Your task to perform on an android device: Go to network settings Image 0: 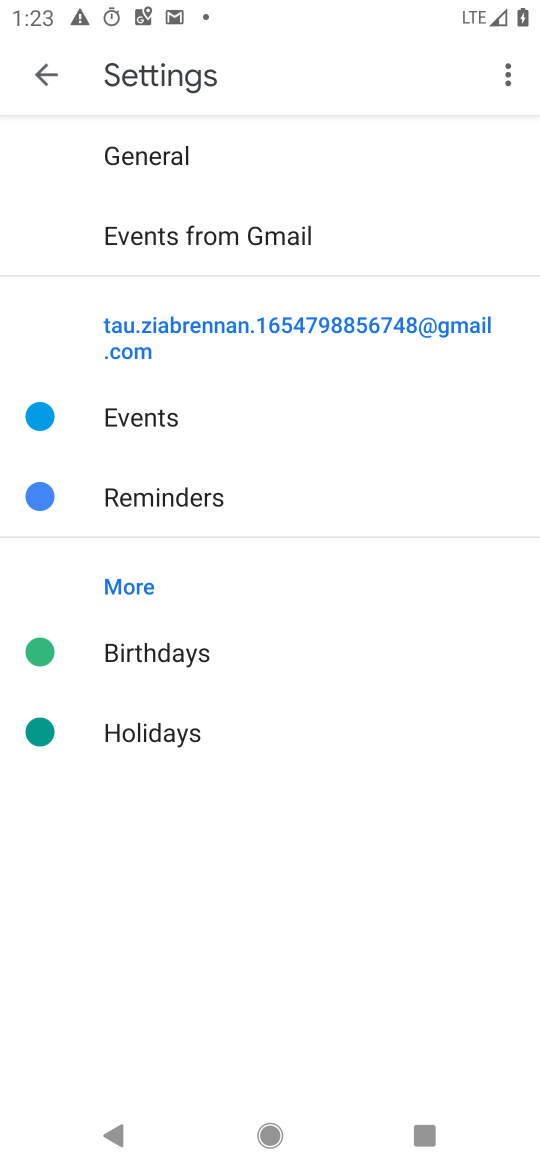
Step 0: drag from (314, 873) to (333, 545)
Your task to perform on an android device: Go to network settings Image 1: 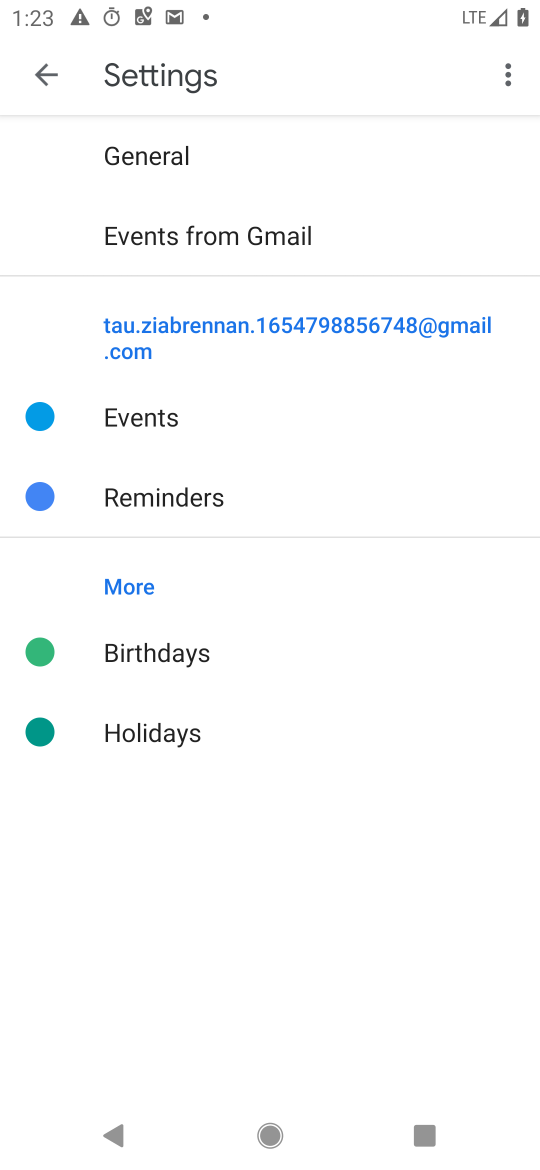
Step 1: press home button
Your task to perform on an android device: Go to network settings Image 2: 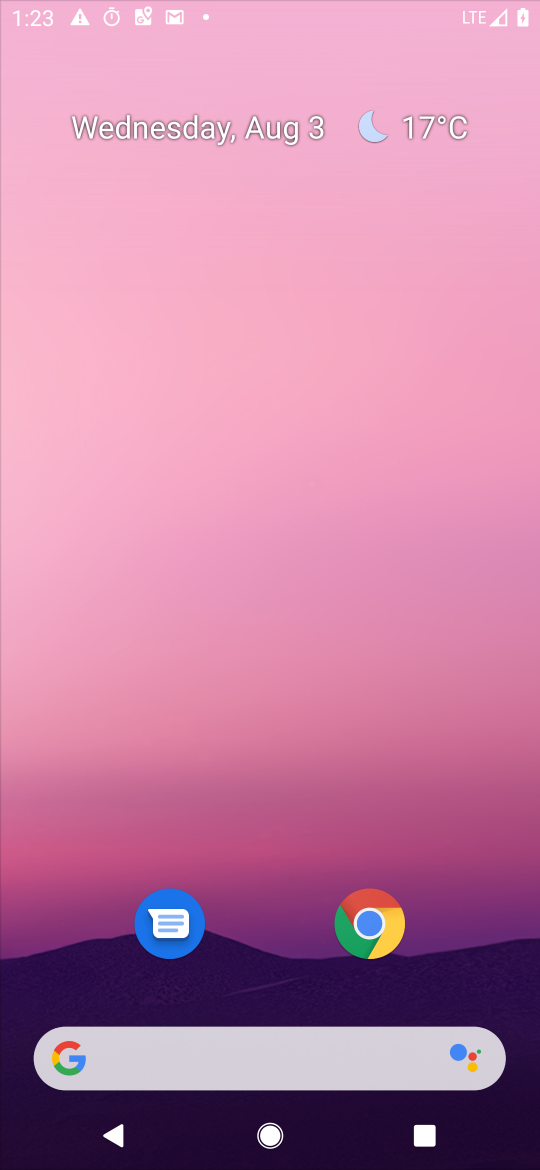
Step 2: drag from (298, 970) to (215, 393)
Your task to perform on an android device: Go to network settings Image 3: 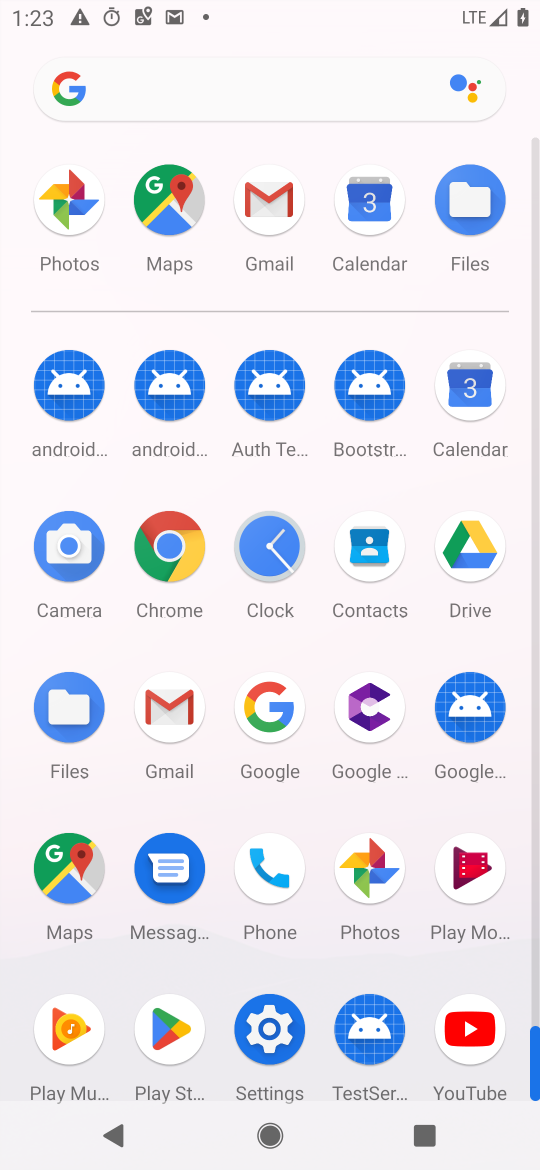
Step 3: click (281, 1021)
Your task to perform on an android device: Go to network settings Image 4: 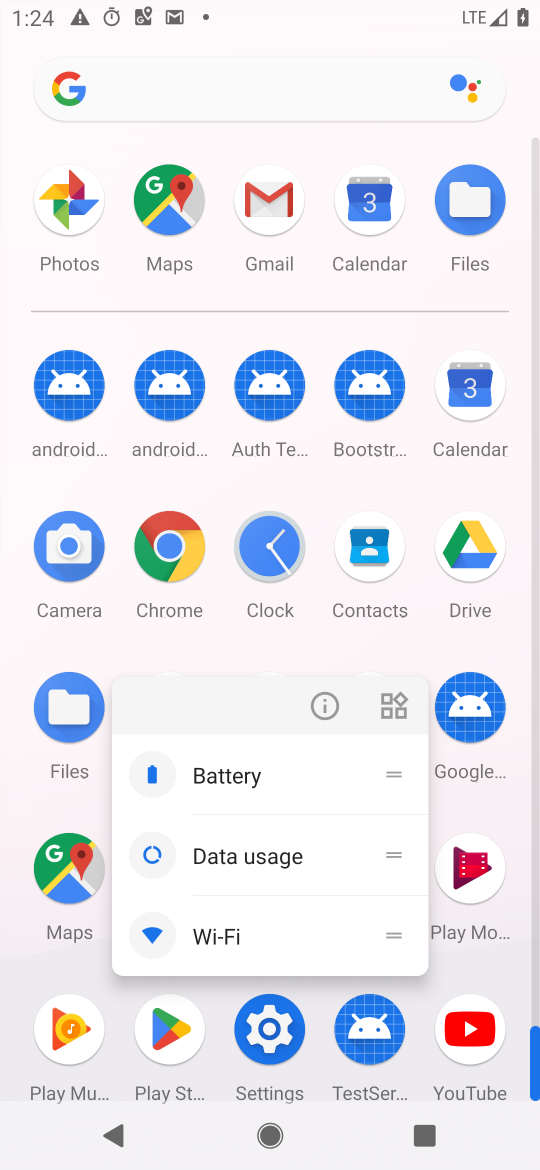
Step 4: click (324, 704)
Your task to perform on an android device: Go to network settings Image 5: 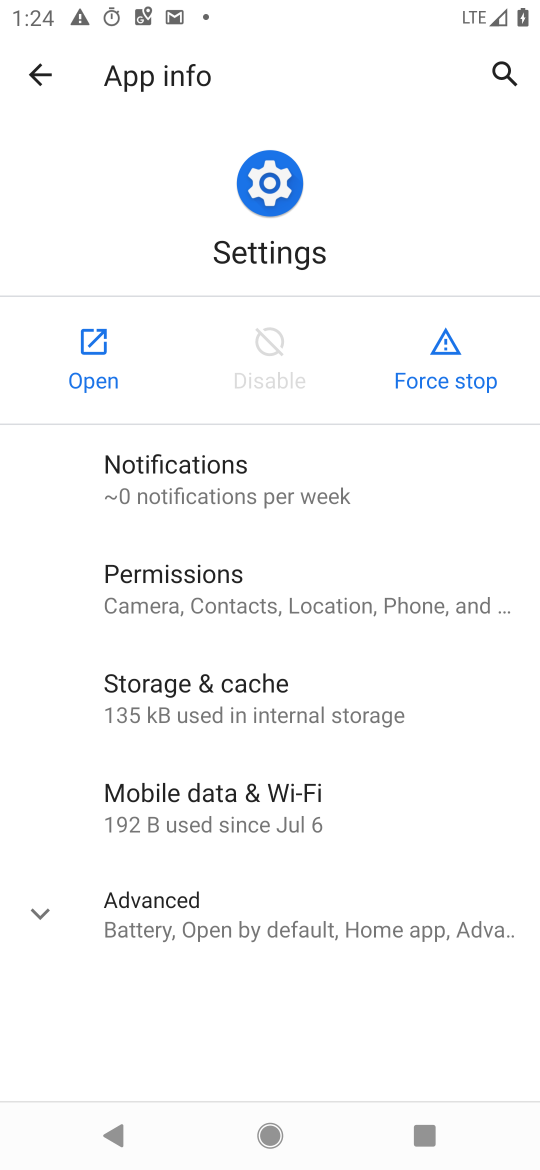
Step 5: click (107, 360)
Your task to perform on an android device: Go to network settings Image 6: 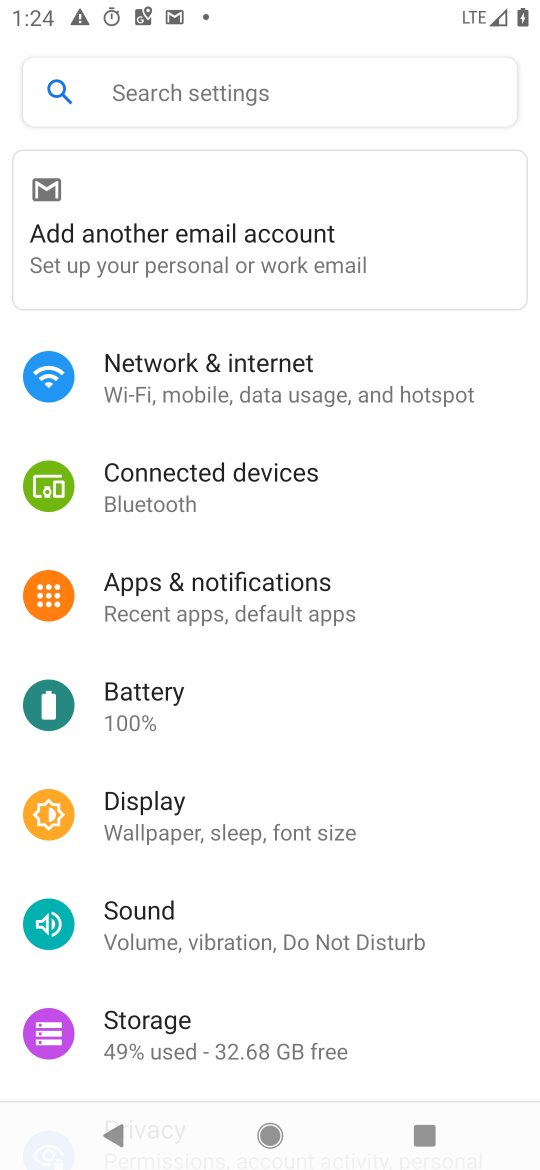
Step 6: drag from (241, 797) to (366, 1075)
Your task to perform on an android device: Go to network settings Image 7: 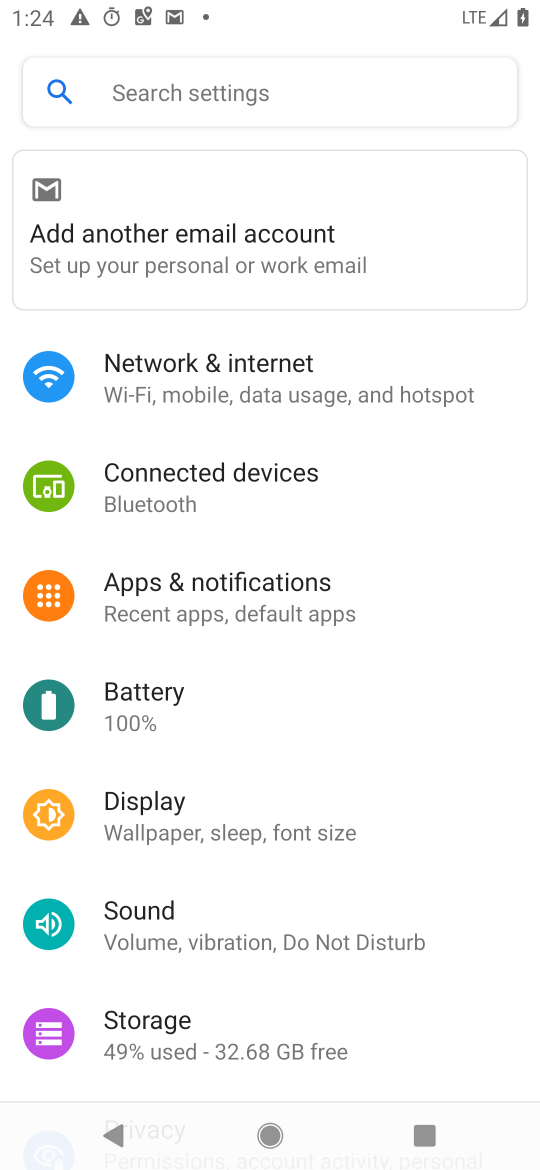
Step 7: click (249, 368)
Your task to perform on an android device: Go to network settings Image 8: 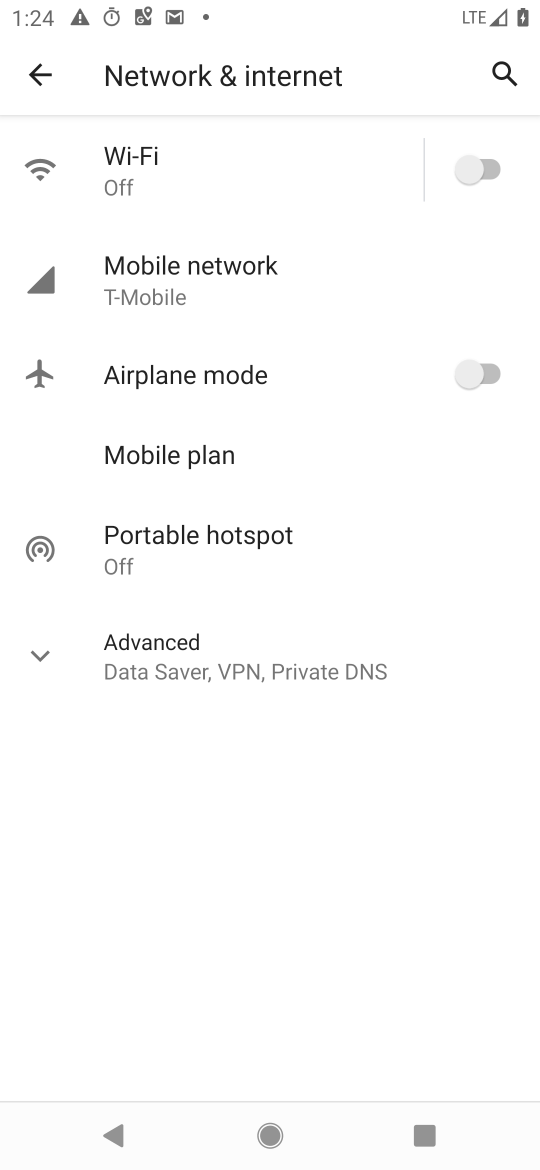
Step 8: drag from (255, 859) to (282, 454)
Your task to perform on an android device: Go to network settings Image 9: 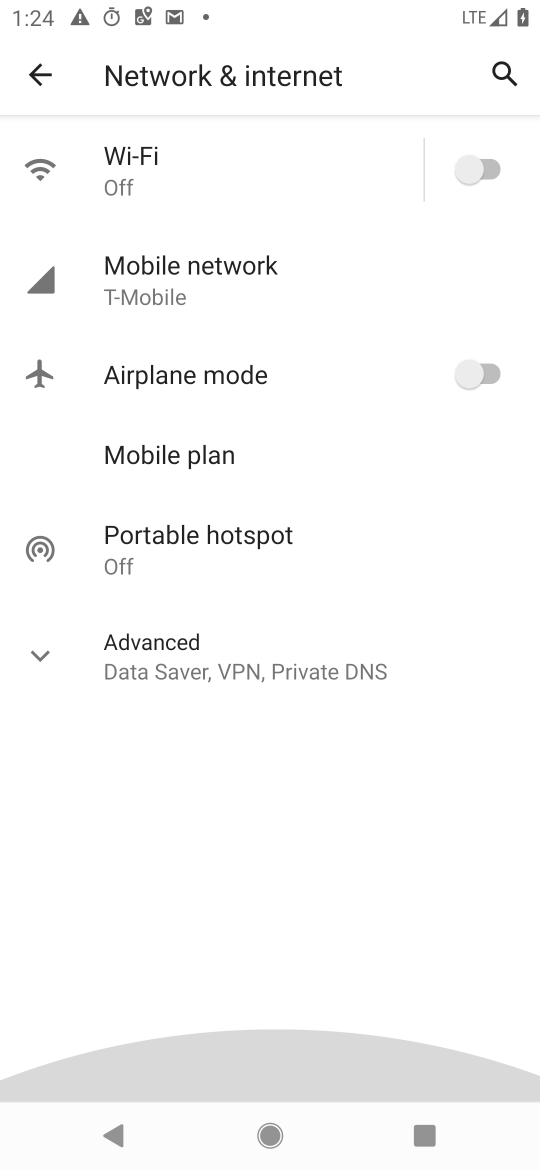
Step 9: drag from (288, 376) to (333, 1163)
Your task to perform on an android device: Go to network settings Image 10: 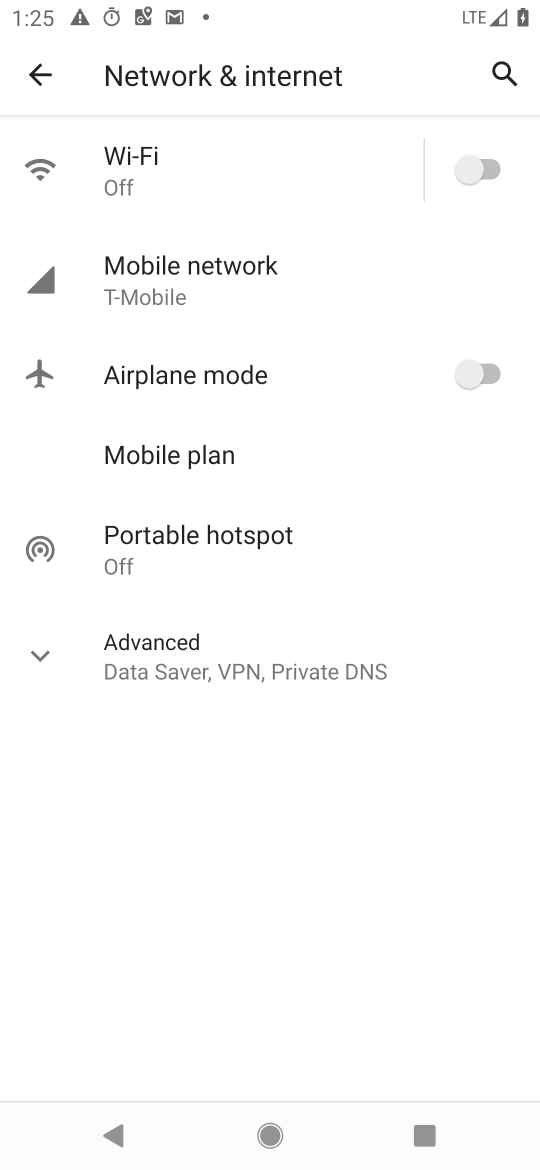
Step 10: click (156, 278)
Your task to perform on an android device: Go to network settings Image 11: 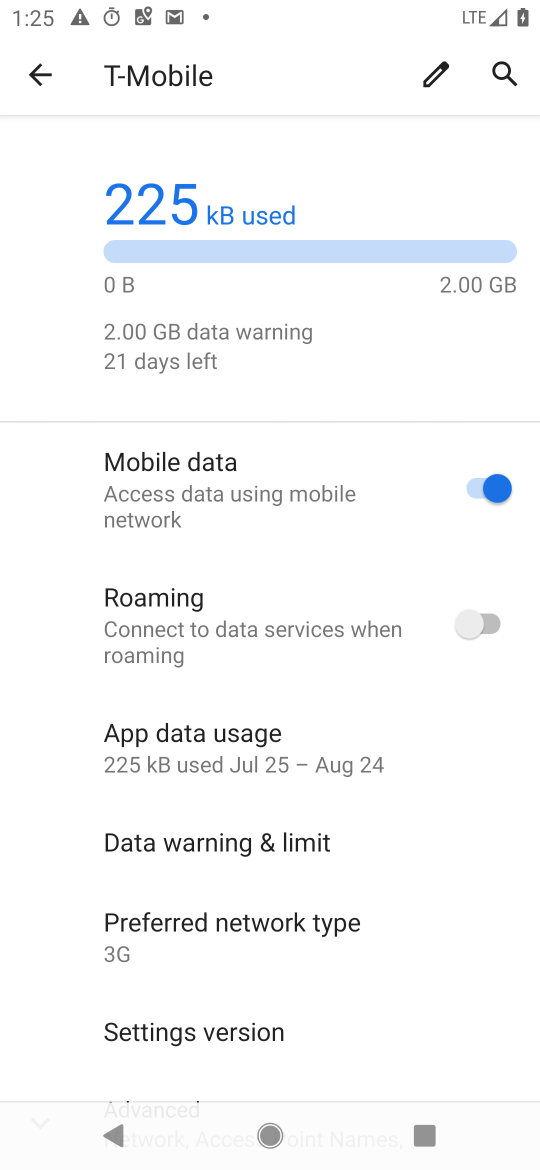
Step 11: task complete